Your task to perform on an android device: turn on the 12-hour format for clock Image 0: 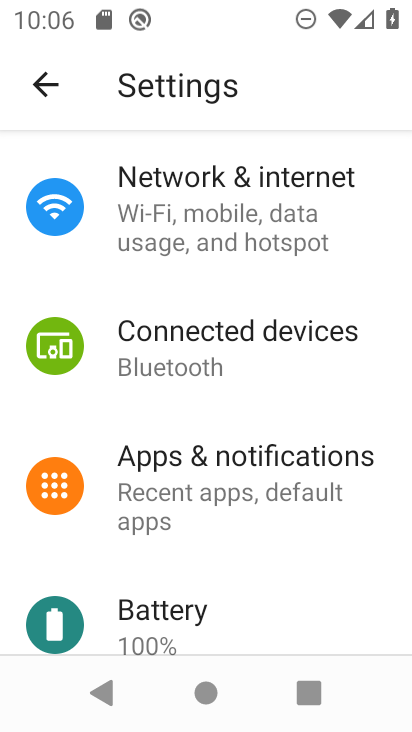
Step 0: press home button
Your task to perform on an android device: turn on the 12-hour format for clock Image 1: 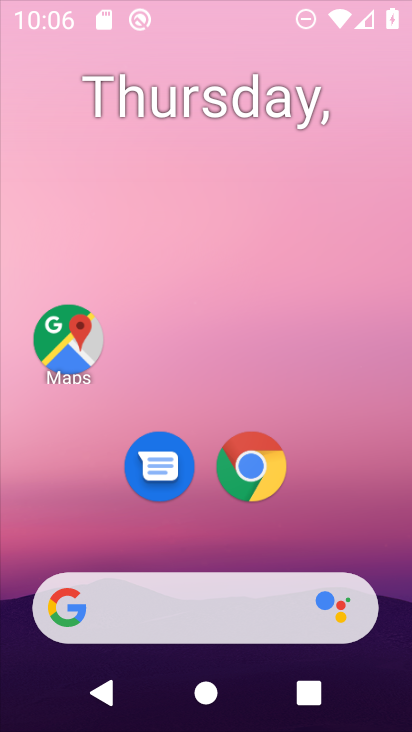
Step 1: drag from (243, 620) to (231, 41)
Your task to perform on an android device: turn on the 12-hour format for clock Image 2: 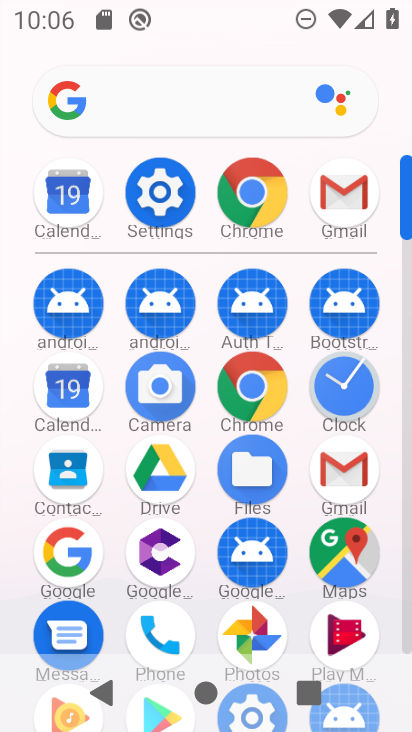
Step 2: click (341, 373)
Your task to perform on an android device: turn on the 12-hour format for clock Image 3: 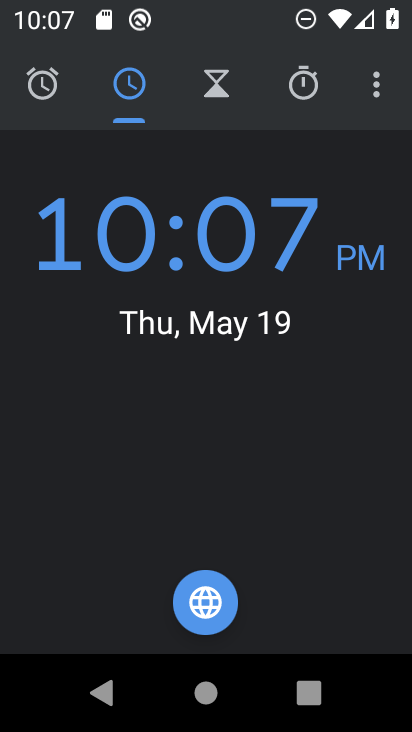
Step 3: click (382, 79)
Your task to perform on an android device: turn on the 12-hour format for clock Image 4: 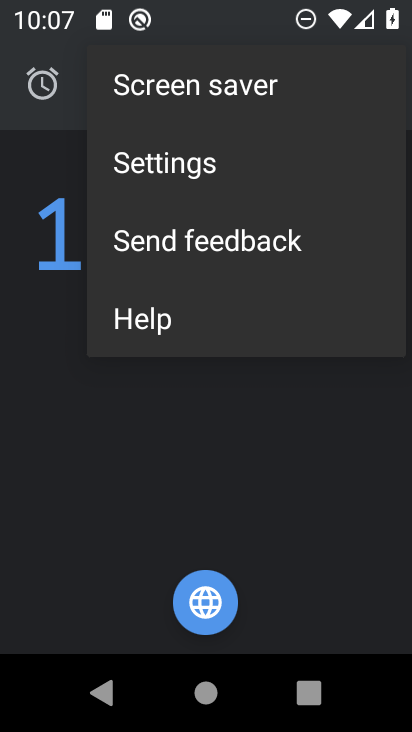
Step 4: click (205, 170)
Your task to perform on an android device: turn on the 12-hour format for clock Image 5: 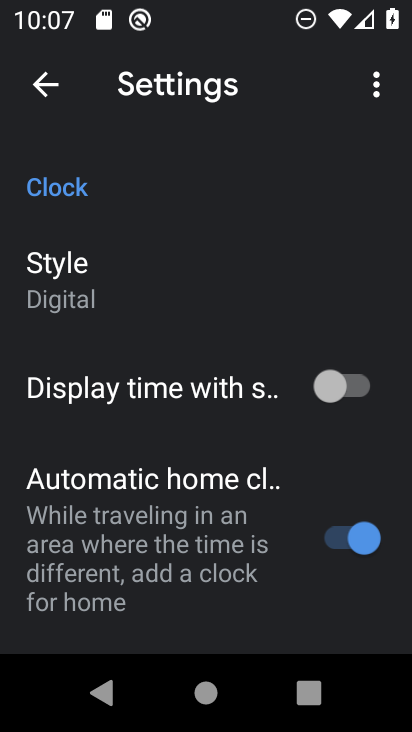
Step 5: drag from (215, 582) to (256, 139)
Your task to perform on an android device: turn on the 12-hour format for clock Image 6: 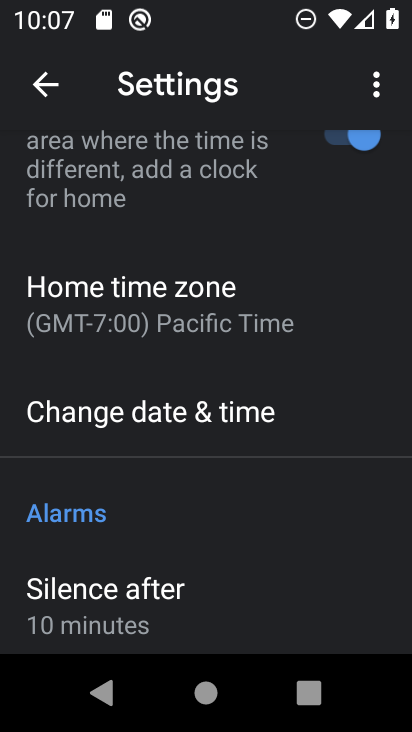
Step 6: drag from (230, 562) to (250, 370)
Your task to perform on an android device: turn on the 12-hour format for clock Image 7: 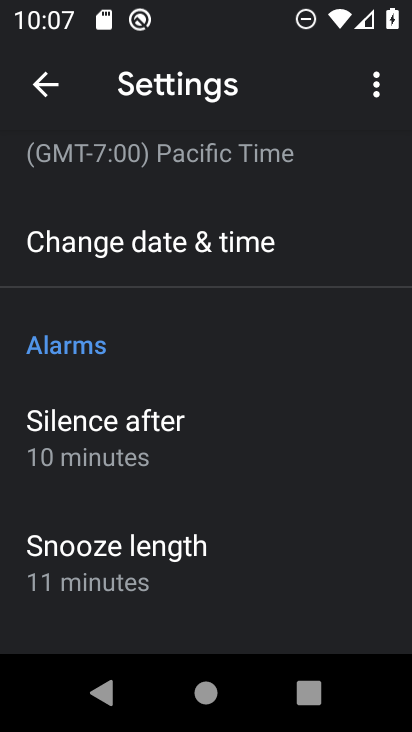
Step 7: click (162, 275)
Your task to perform on an android device: turn on the 12-hour format for clock Image 8: 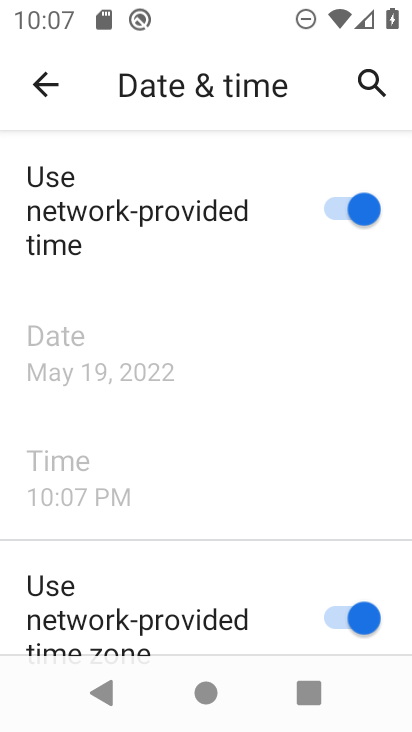
Step 8: drag from (222, 552) to (292, 329)
Your task to perform on an android device: turn on the 12-hour format for clock Image 9: 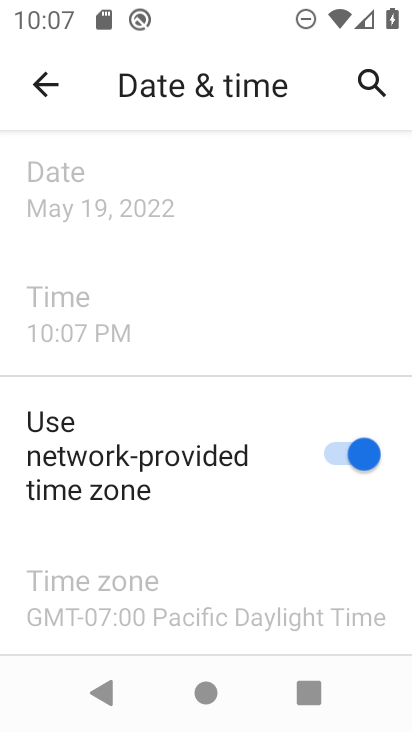
Step 9: drag from (260, 629) to (295, 134)
Your task to perform on an android device: turn on the 12-hour format for clock Image 10: 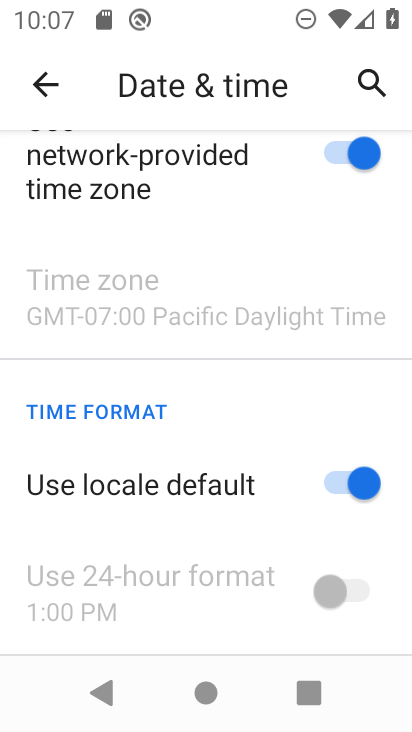
Step 10: click (339, 487)
Your task to perform on an android device: turn on the 12-hour format for clock Image 11: 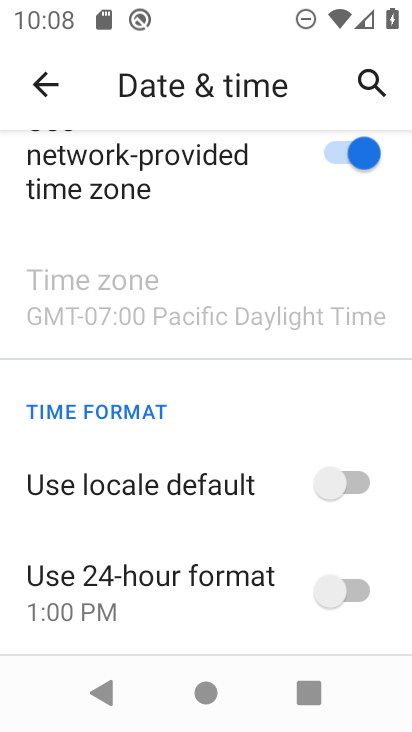
Step 11: task complete